Your task to perform on an android device: toggle wifi Image 0: 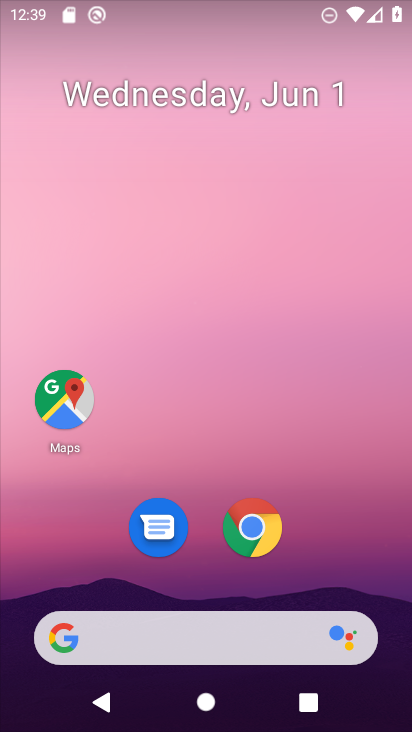
Step 0: drag from (145, 675) to (356, 22)
Your task to perform on an android device: toggle wifi Image 1: 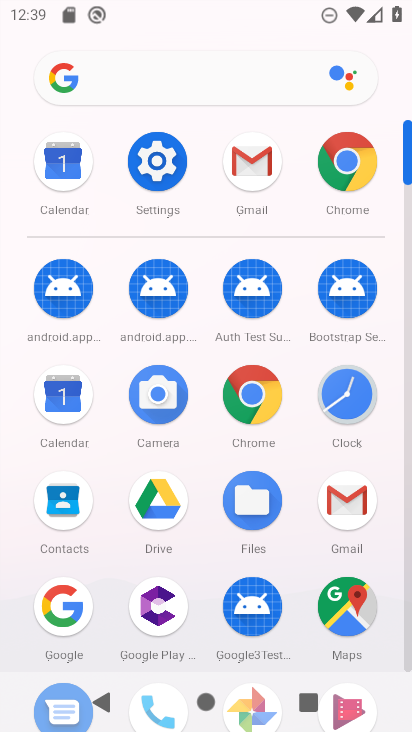
Step 1: click (158, 147)
Your task to perform on an android device: toggle wifi Image 2: 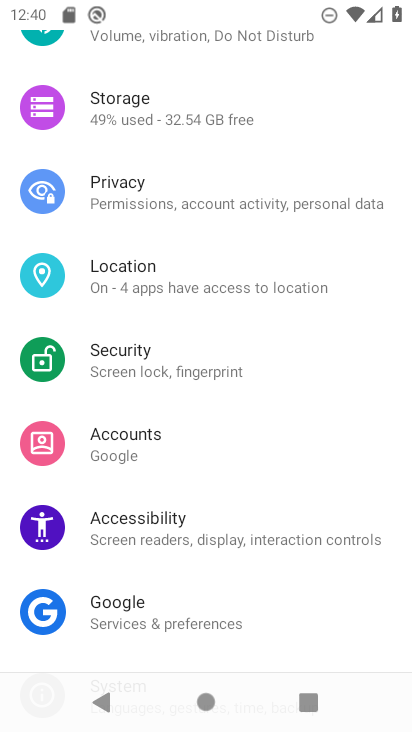
Step 2: drag from (203, 191) to (94, 655)
Your task to perform on an android device: toggle wifi Image 3: 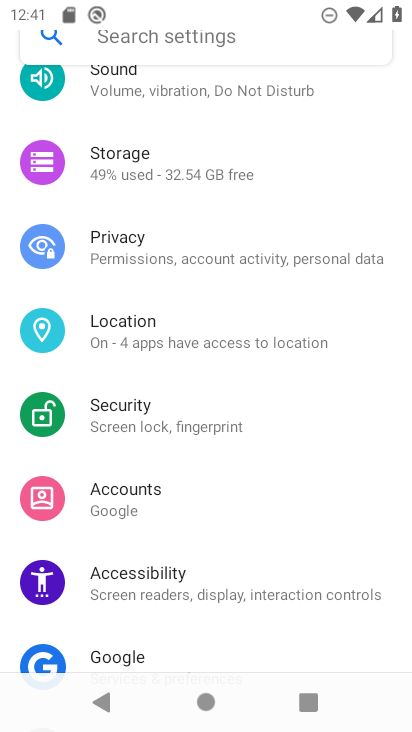
Step 3: drag from (294, 140) to (261, 700)
Your task to perform on an android device: toggle wifi Image 4: 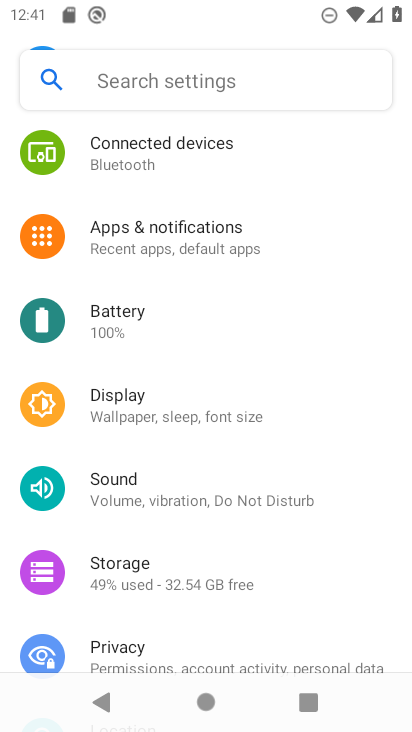
Step 4: drag from (285, 222) to (310, 659)
Your task to perform on an android device: toggle wifi Image 5: 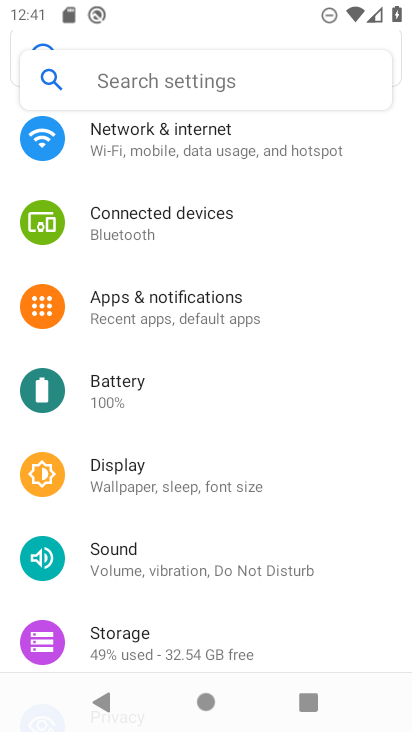
Step 5: click (284, 145)
Your task to perform on an android device: toggle wifi Image 6: 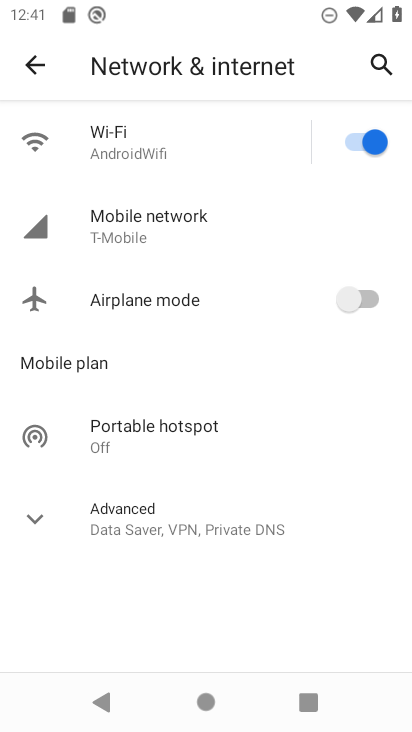
Step 6: click (365, 140)
Your task to perform on an android device: toggle wifi Image 7: 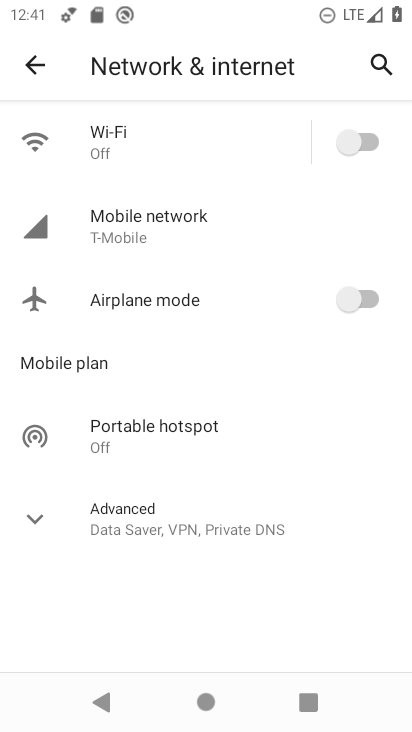
Step 7: task complete